Your task to perform on an android device: open chrome privacy settings Image 0: 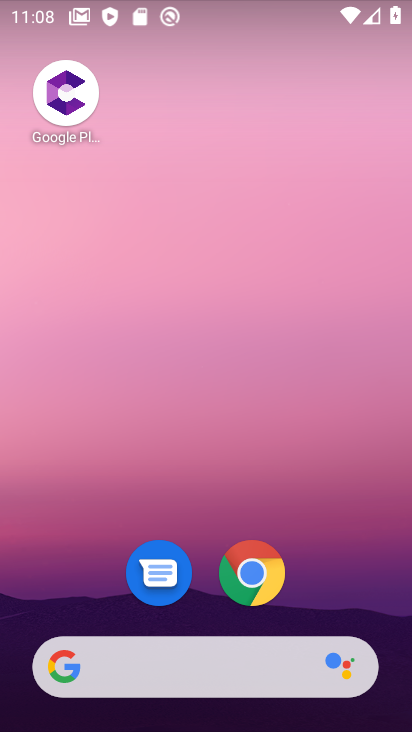
Step 0: drag from (240, 484) to (274, 407)
Your task to perform on an android device: open chrome privacy settings Image 1: 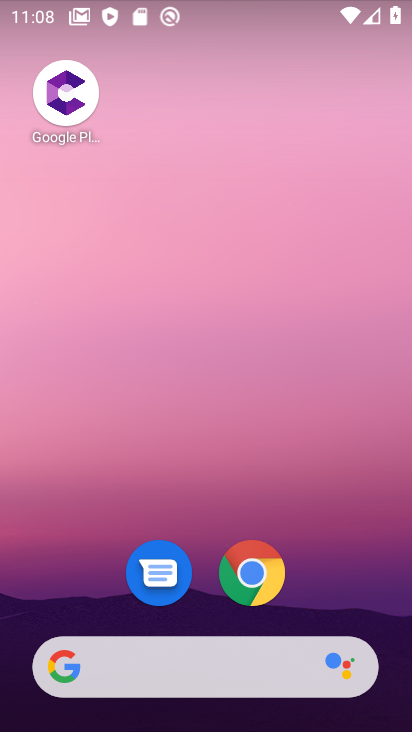
Step 1: click (246, 556)
Your task to perform on an android device: open chrome privacy settings Image 2: 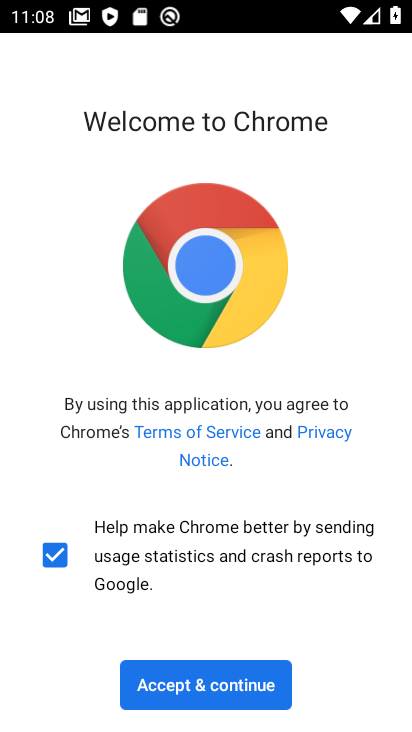
Step 2: click (188, 677)
Your task to perform on an android device: open chrome privacy settings Image 3: 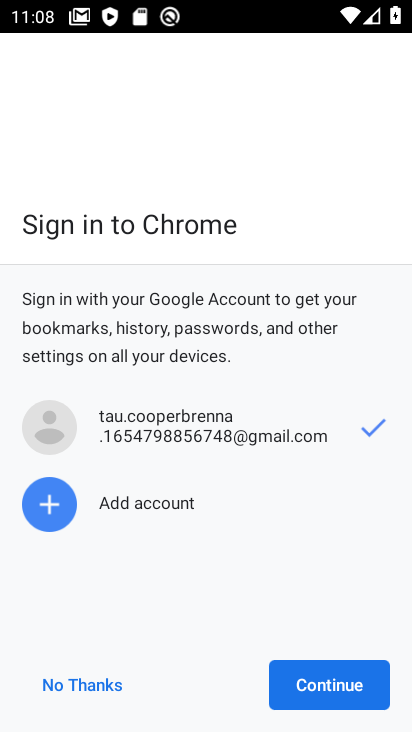
Step 3: click (98, 687)
Your task to perform on an android device: open chrome privacy settings Image 4: 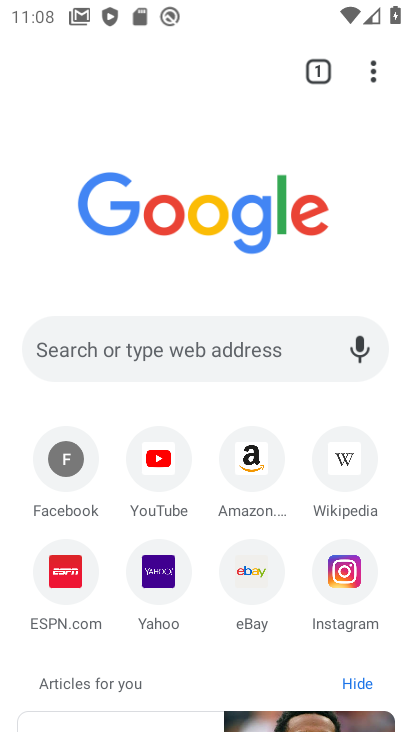
Step 4: click (372, 72)
Your task to perform on an android device: open chrome privacy settings Image 5: 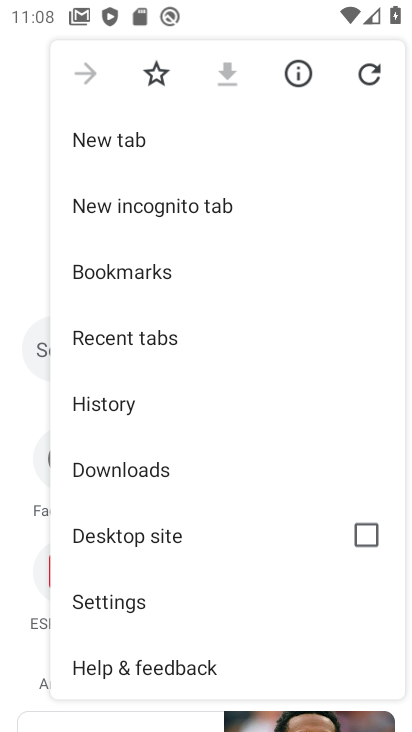
Step 5: task complete